Your task to perform on an android device: Open location settings Image 0: 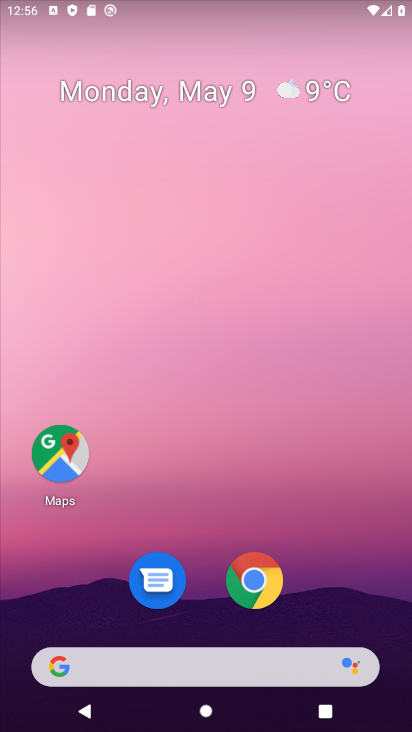
Step 0: drag from (349, 565) to (258, 105)
Your task to perform on an android device: Open location settings Image 1: 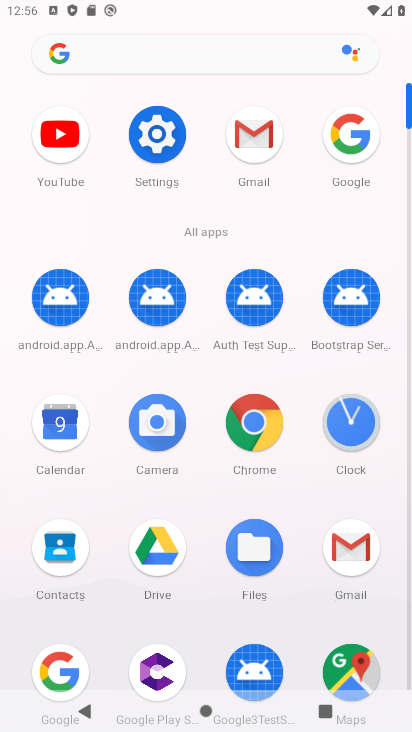
Step 1: click (146, 130)
Your task to perform on an android device: Open location settings Image 2: 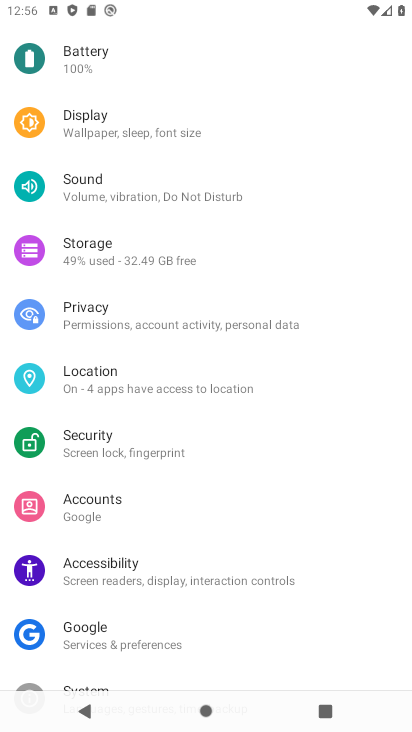
Step 2: click (144, 391)
Your task to perform on an android device: Open location settings Image 3: 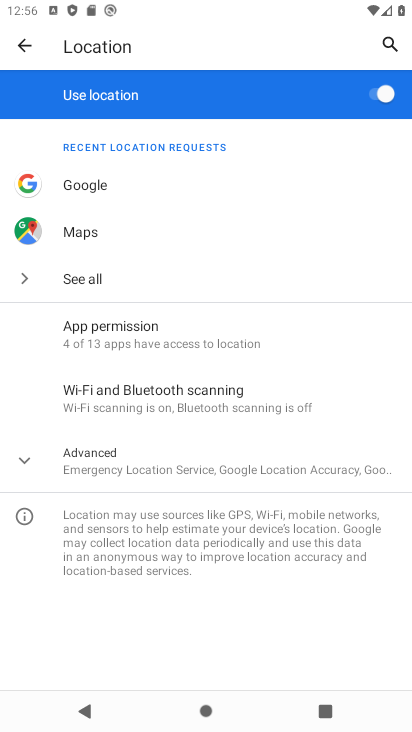
Step 3: task complete